Your task to perform on an android device: Go to CNN.com Image 0: 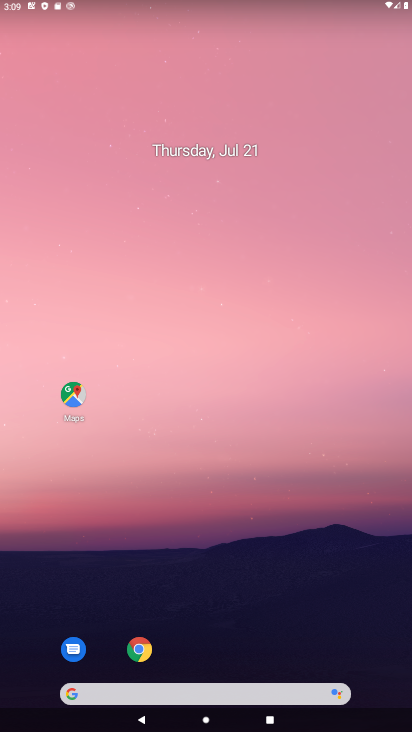
Step 0: task complete